Your task to perform on an android device: Open display settings Image 0: 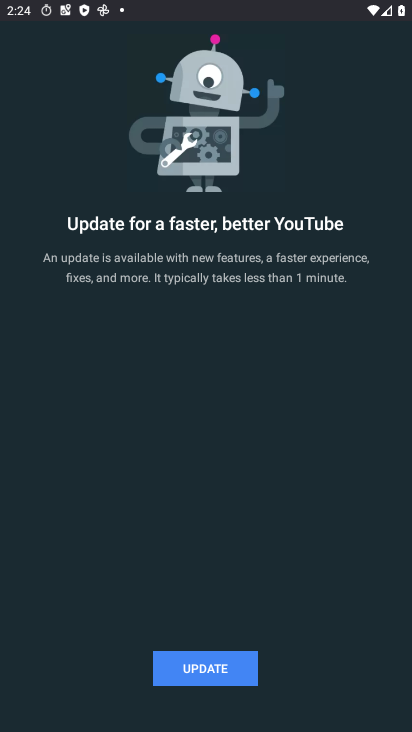
Step 0: drag from (313, 632) to (313, 309)
Your task to perform on an android device: Open display settings Image 1: 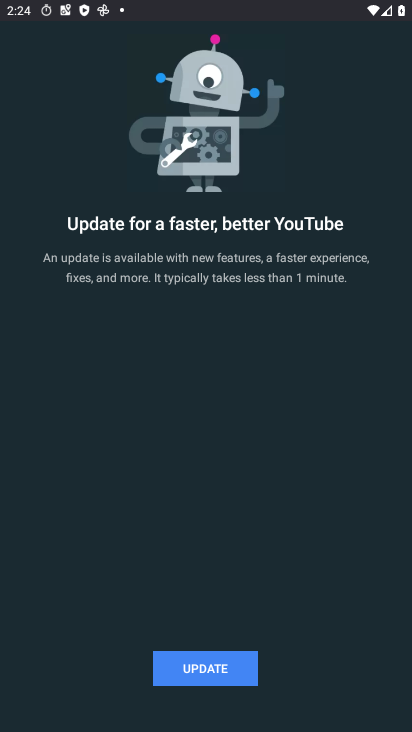
Step 1: press back button
Your task to perform on an android device: Open display settings Image 2: 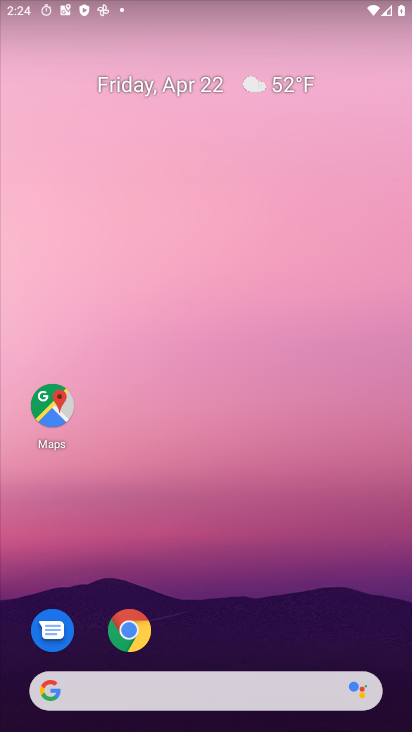
Step 2: click (322, 261)
Your task to perform on an android device: Open display settings Image 3: 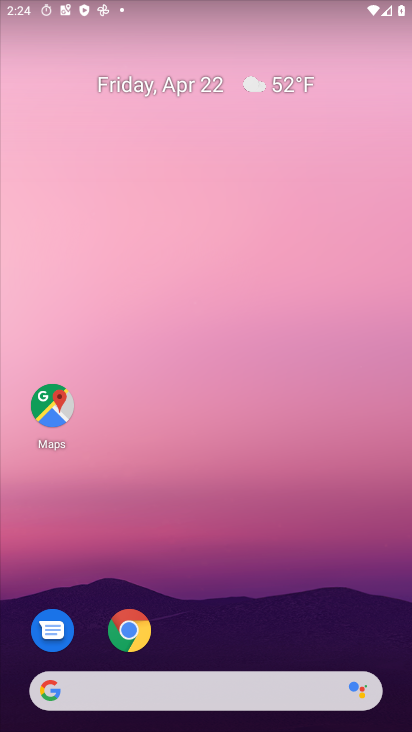
Step 3: drag from (382, 555) to (372, 202)
Your task to perform on an android device: Open display settings Image 4: 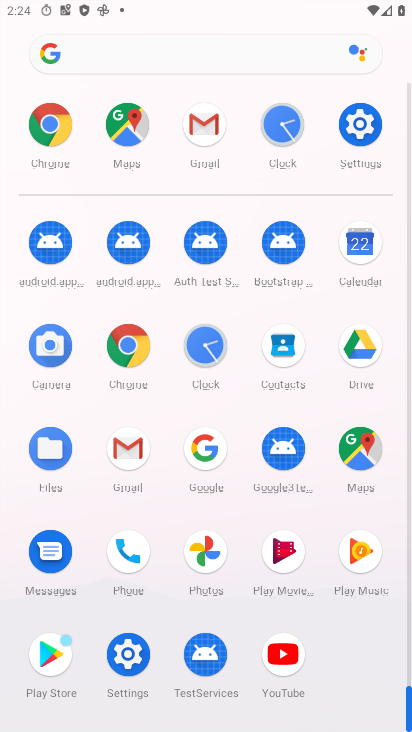
Step 4: click (356, 112)
Your task to perform on an android device: Open display settings Image 5: 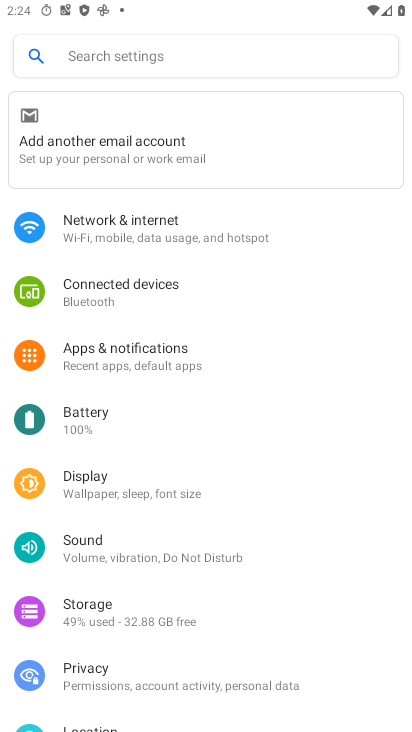
Step 5: click (60, 479)
Your task to perform on an android device: Open display settings Image 6: 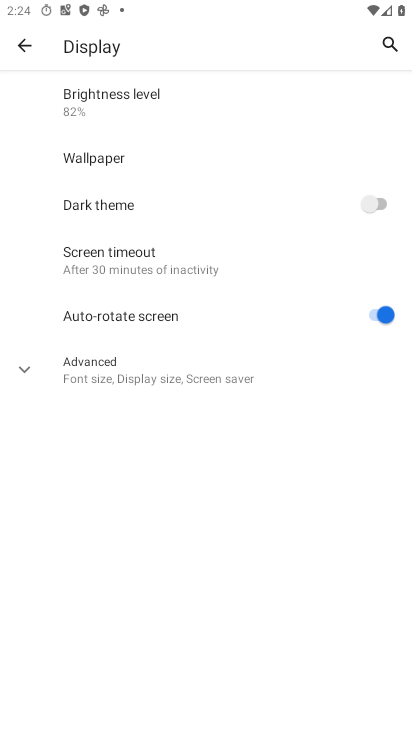
Step 6: task complete